Your task to perform on an android device: turn on location history Image 0: 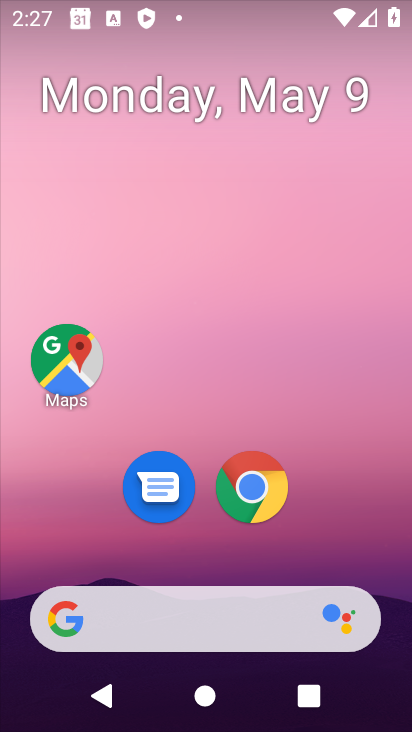
Step 0: drag from (315, 474) to (309, 28)
Your task to perform on an android device: turn on location history Image 1: 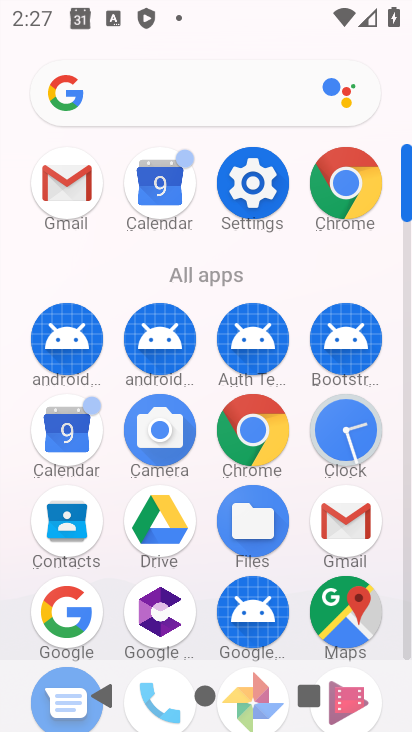
Step 1: click (257, 167)
Your task to perform on an android device: turn on location history Image 2: 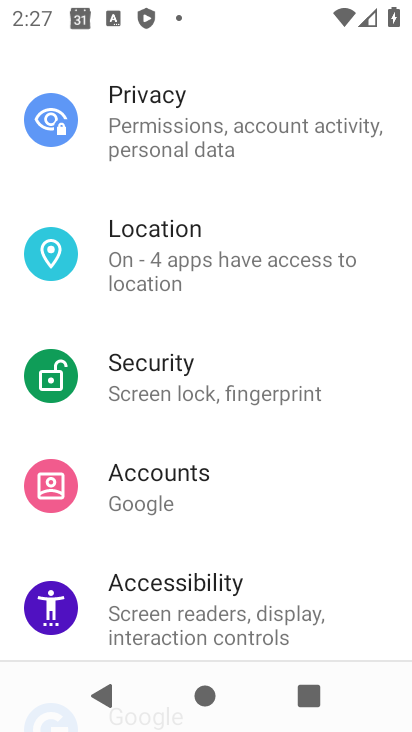
Step 2: click (234, 255)
Your task to perform on an android device: turn on location history Image 3: 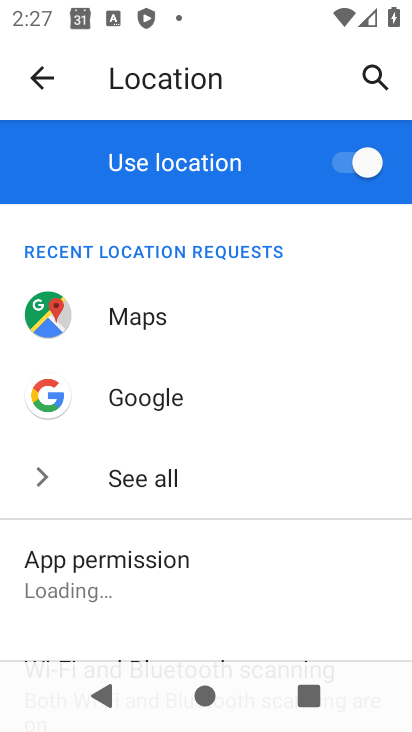
Step 3: drag from (244, 565) to (252, 159)
Your task to perform on an android device: turn on location history Image 4: 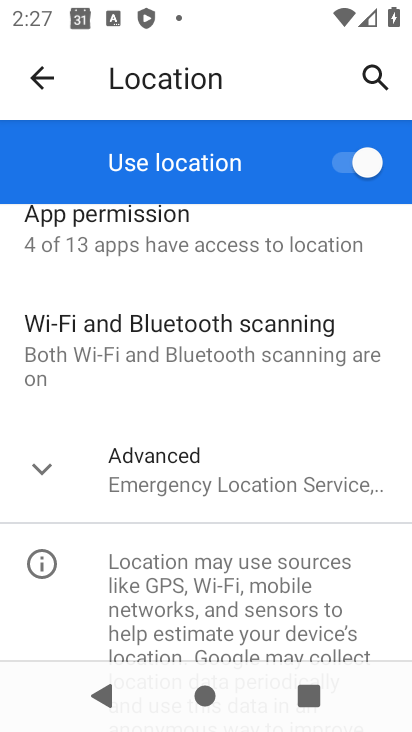
Step 4: click (45, 467)
Your task to perform on an android device: turn on location history Image 5: 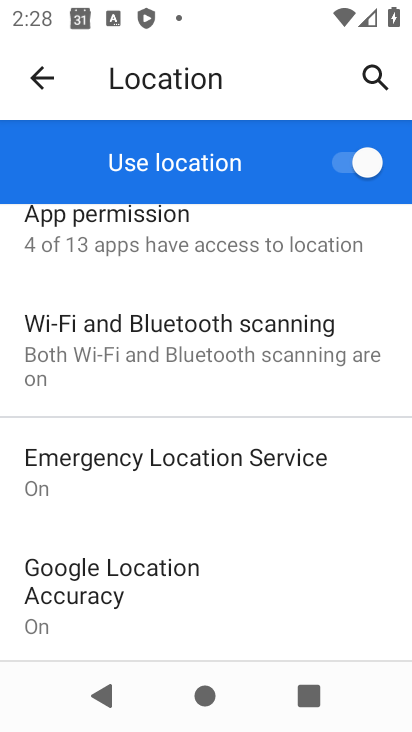
Step 5: drag from (237, 612) to (255, 318)
Your task to perform on an android device: turn on location history Image 6: 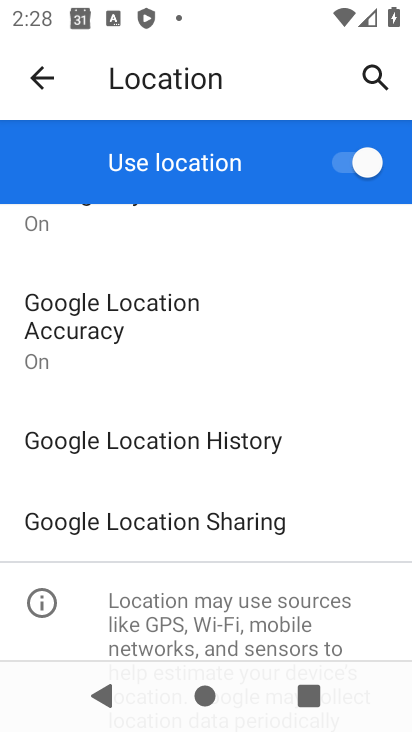
Step 6: click (226, 446)
Your task to perform on an android device: turn on location history Image 7: 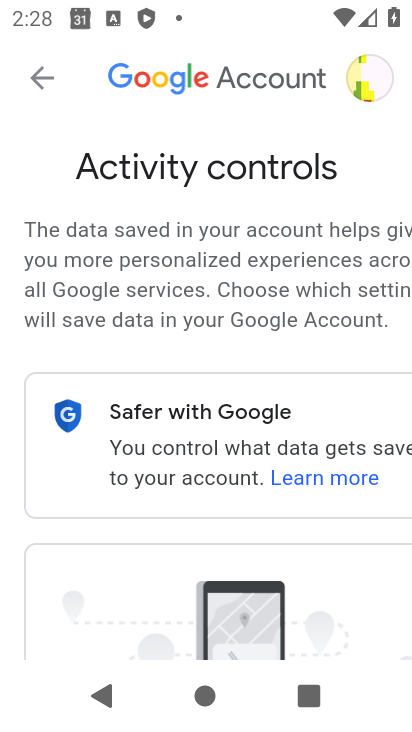
Step 7: drag from (147, 534) to (195, 188)
Your task to perform on an android device: turn on location history Image 8: 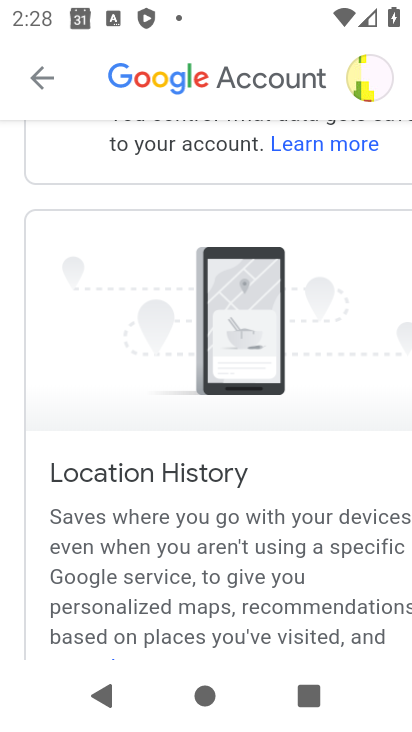
Step 8: drag from (198, 524) to (241, 207)
Your task to perform on an android device: turn on location history Image 9: 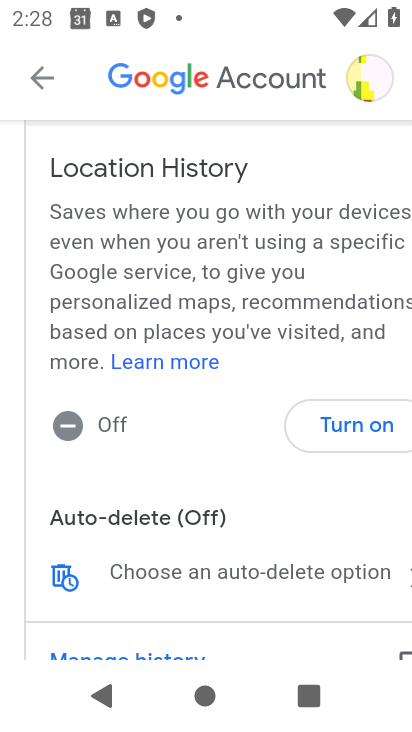
Step 9: click (352, 428)
Your task to perform on an android device: turn on location history Image 10: 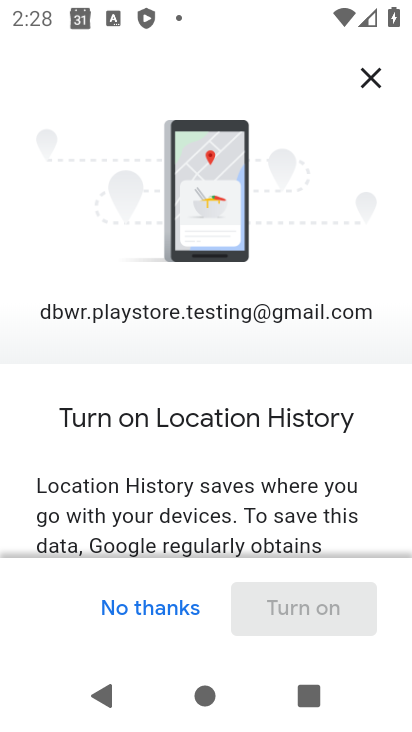
Step 10: drag from (278, 503) to (274, 101)
Your task to perform on an android device: turn on location history Image 11: 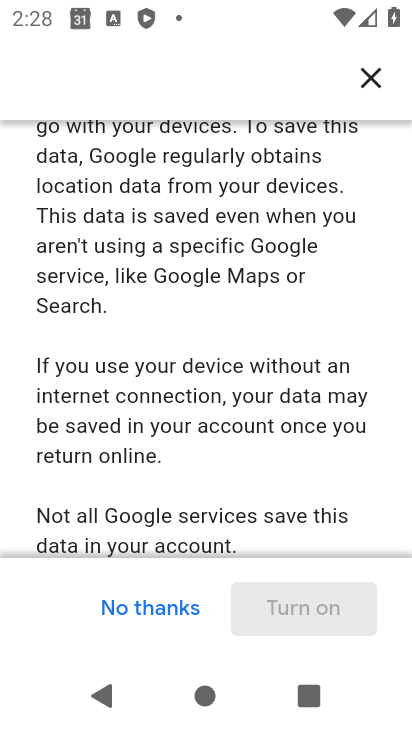
Step 11: drag from (261, 451) to (280, 136)
Your task to perform on an android device: turn on location history Image 12: 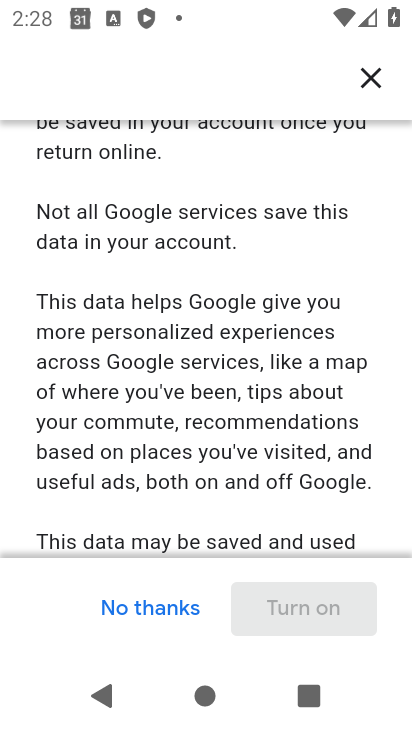
Step 12: drag from (264, 475) to (278, 118)
Your task to perform on an android device: turn on location history Image 13: 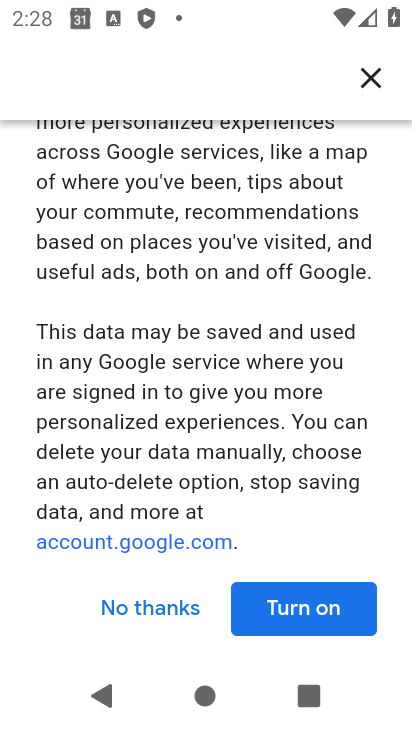
Step 13: drag from (238, 434) to (258, 254)
Your task to perform on an android device: turn on location history Image 14: 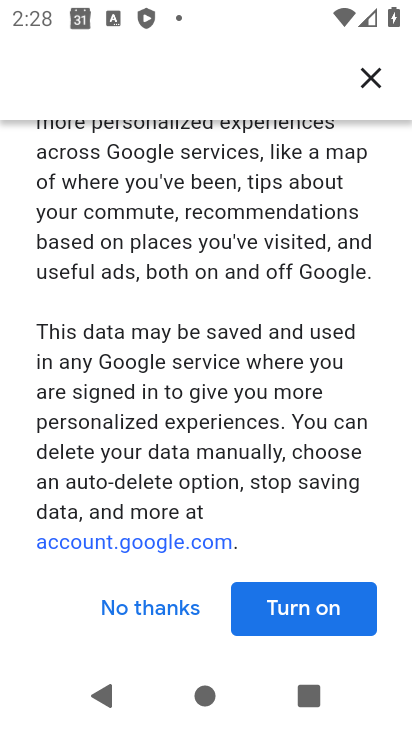
Step 14: click (301, 615)
Your task to perform on an android device: turn on location history Image 15: 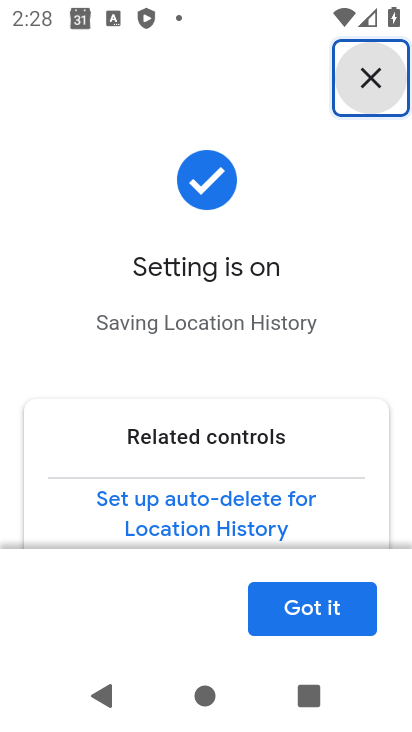
Step 15: click (347, 604)
Your task to perform on an android device: turn on location history Image 16: 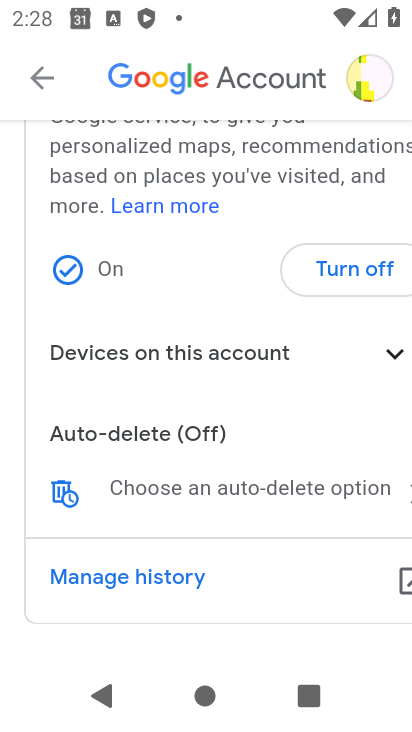
Step 16: task complete